Your task to perform on an android device: Is it going to rain this weekend? Image 0: 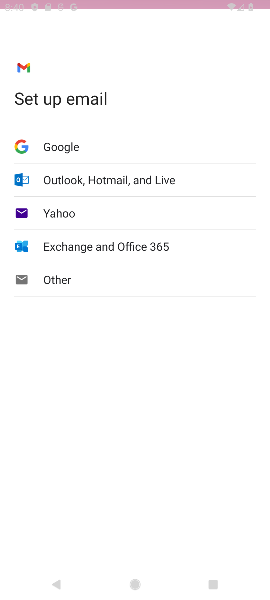
Step 0: press home button
Your task to perform on an android device: Is it going to rain this weekend? Image 1: 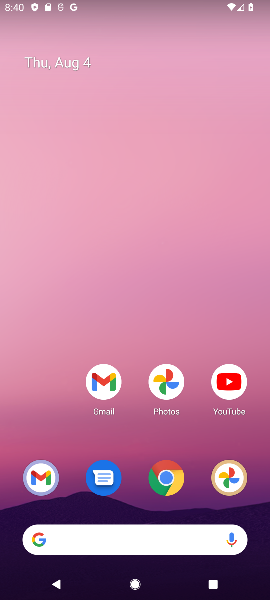
Step 1: click (174, 479)
Your task to perform on an android device: Is it going to rain this weekend? Image 2: 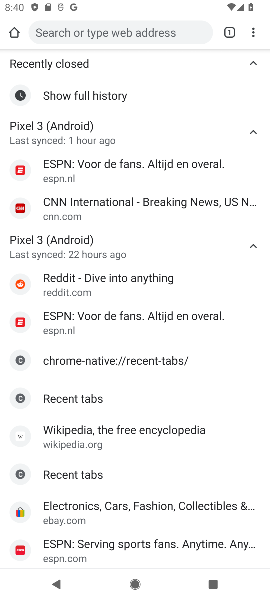
Step 2: click (120, 34)
Your task to perform on an android device: Is it going to rain this weekend? Image 3: 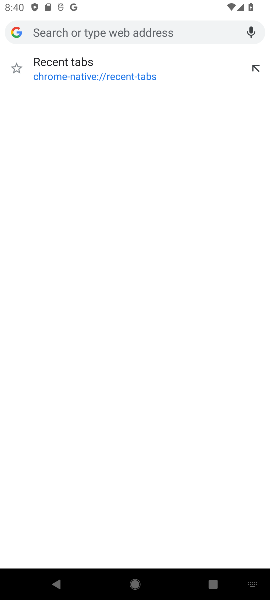
Step 3: type "Is it going to rain this weekend?"
Your task to perform on an android device: Is it going to rain this weekend? Image 4: 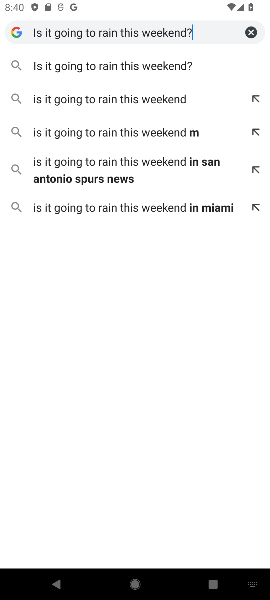
Step 4: type ""
Your task to perform on an android device: Is it going to rain this weekend? Image 5: 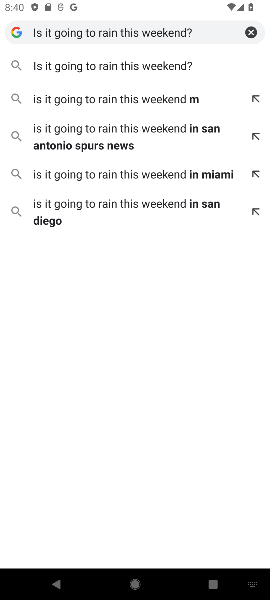
Step 5: click (126, 66)
Your task to perform on an android device: Is it going to rain this weekend? Image 6: 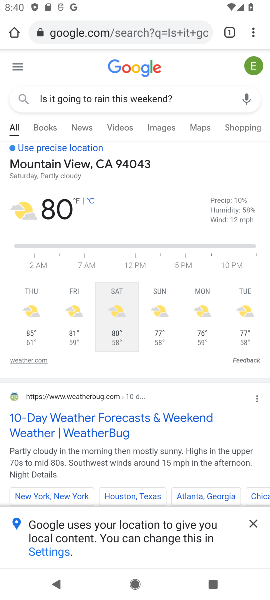
Step 6: task complete